Your task to perform on an android device: Go to calendar. Show me events next week Image 0: 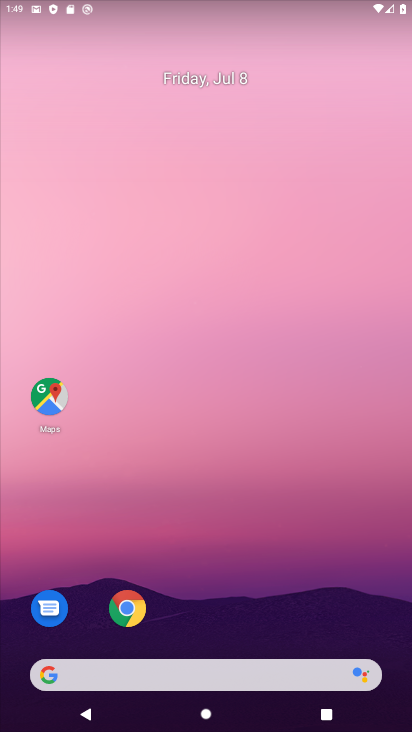
Step 0: drag from (221, 553) to (230, 378)
Your task to perform on an android device: Go to calendar. Show me events next week Image 1: 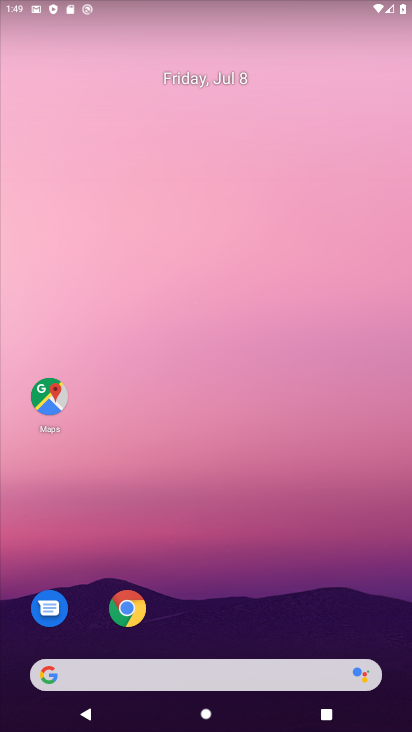
Step 1: drag from (309, 555) to (292, 31)
Your task to perform on an android device: Go to calendar. Show me events next week Image 2: 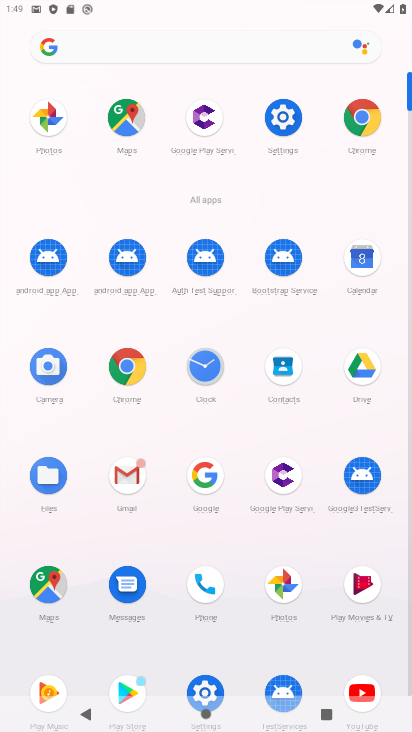
Step 2: click (366, 258)
Your task to perform on an android device: Go to calendar. Show me events next week Image 3: 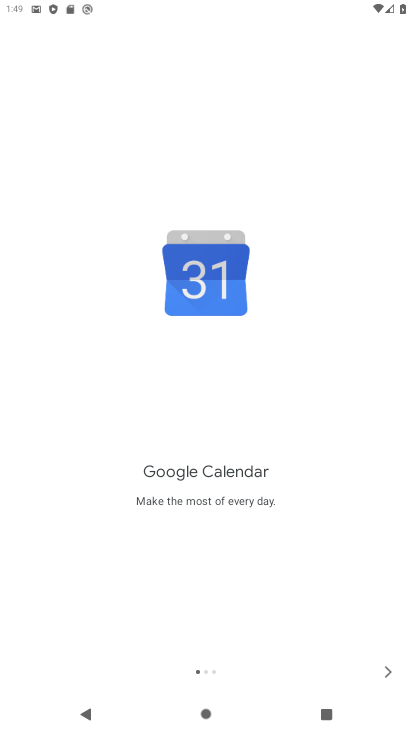
Step 3: click (382, 675)
Your task to perform on an android device: Go to calendar. Show me events next week Image 4: 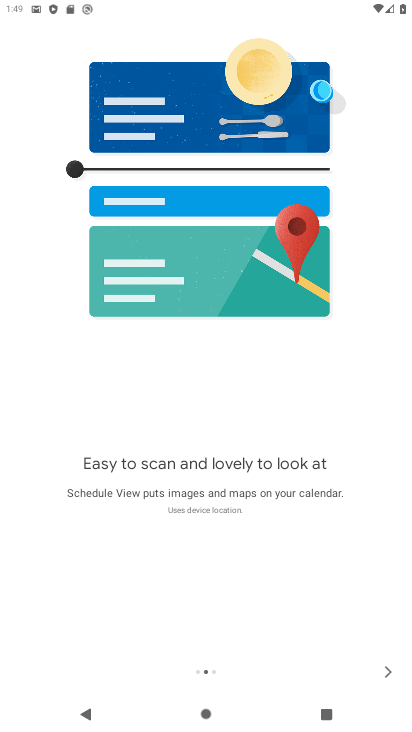
Step 4: click (384, 674)
Your task to perform on an android device: Go to calendar. Show me events next week Image 5: 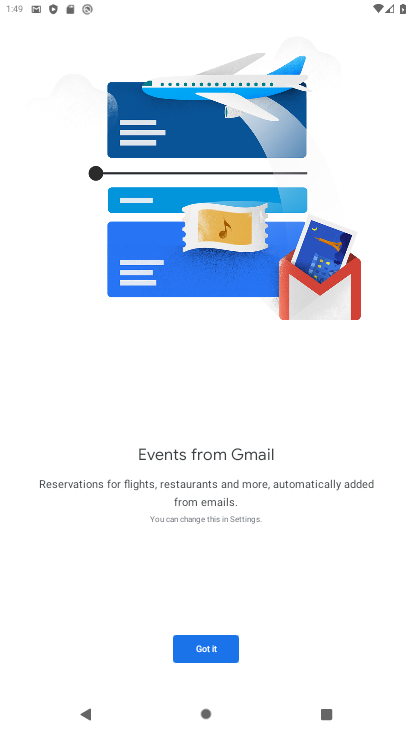
Step 5: click (186, 649)
Your task to perform on an android device: Go to calendar. Show me events next week Image 6: 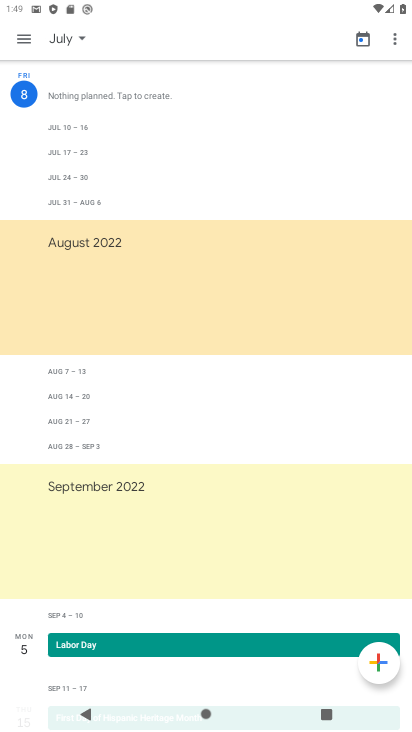
Step 6: click (64, 33)
Your task to perform on an android device: Go to calendar. Show me events next week Image 7: 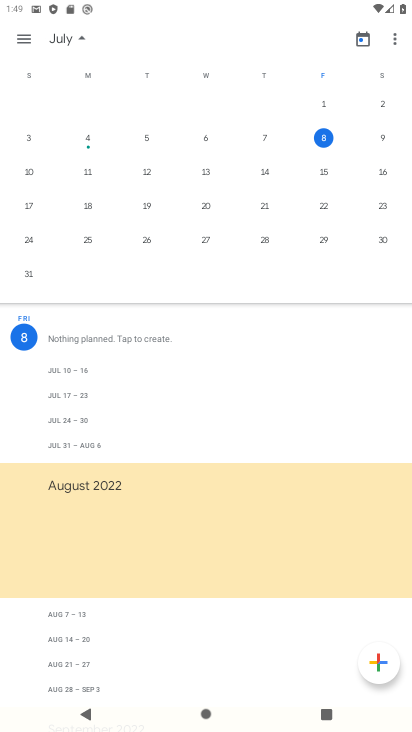
Step 7: click (35, 173)
Your task to perform on an android device: Go to calendar. Show me events next week Image 8: 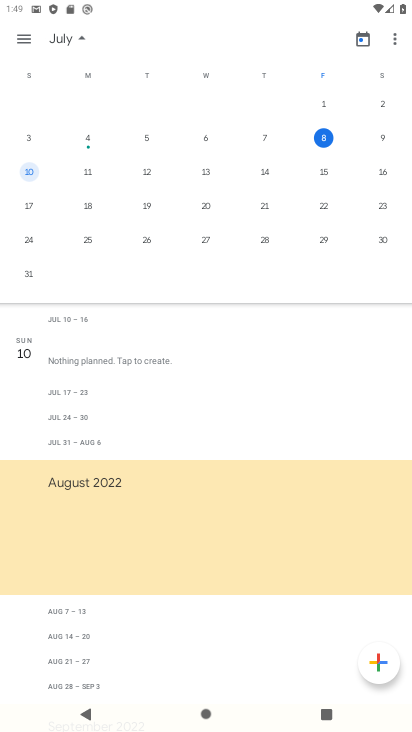
Step 8: click (96, 174)
Your task to perform on an android device: Go to calendar. Show me events next week Image 9: 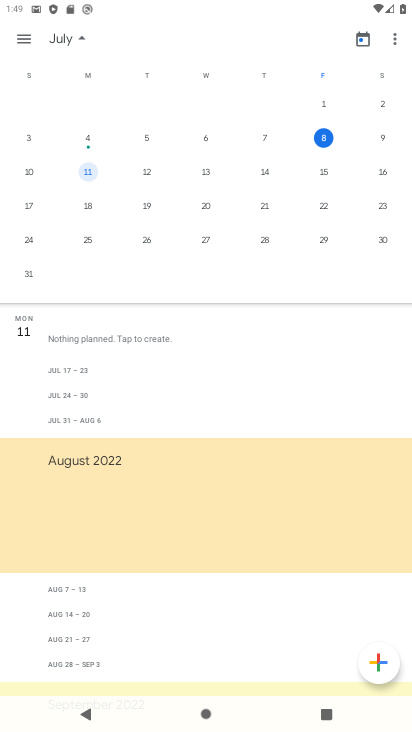
Step 9: click (156, 179)
Your task to perform on an android device: Go to calendar. Show me events next week Image 10: 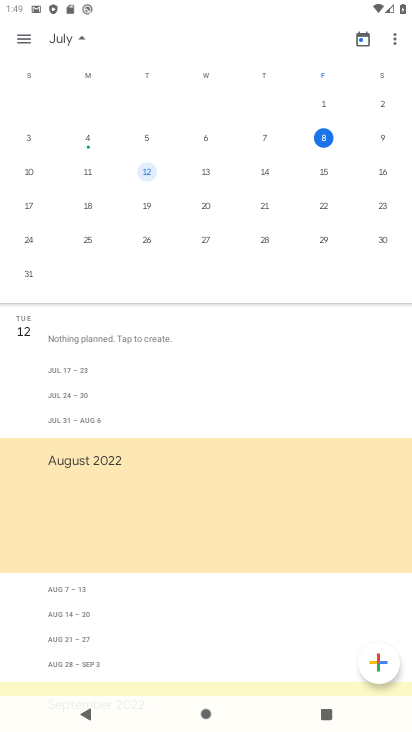
Step 10: click (209, 177)
Your task to perform on an android device: Go to calendar. Show me events next week Image 11: 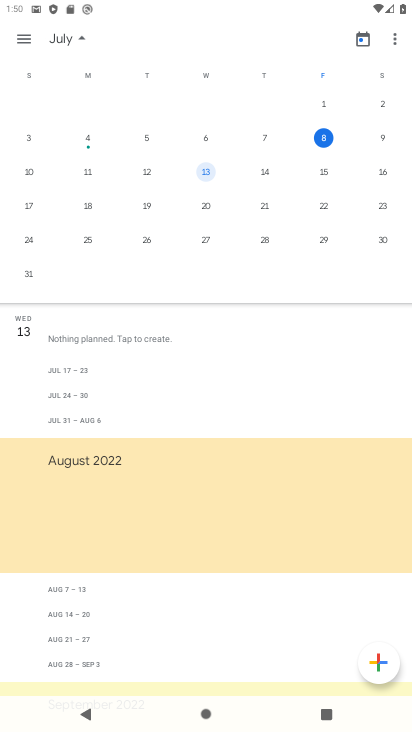
Step 11: click (268, 175)
Your task to perform on an android device: Go to calendar. Show me events next week Image 12: 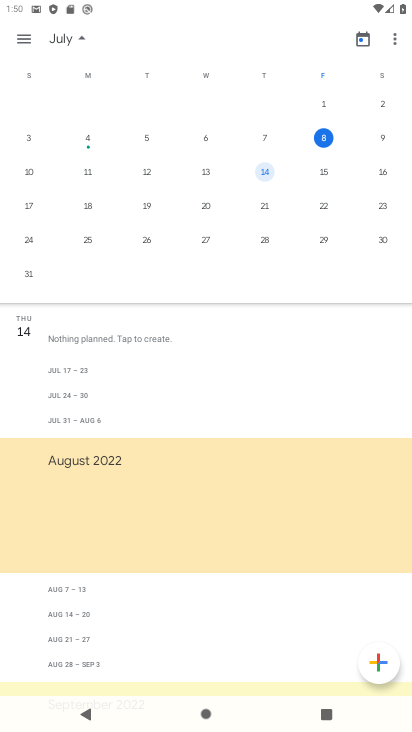
Step 12: click (334, 175)
Your task to perform on an android device: Go to calendar. Show me events next week Image 13: 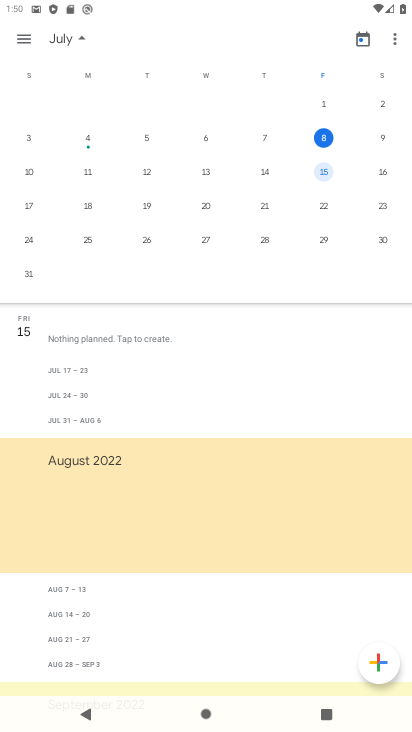
Step 13: click (388, 175)
Your task to perform on an android device: Go to calendar. Show me events next week Image 14: 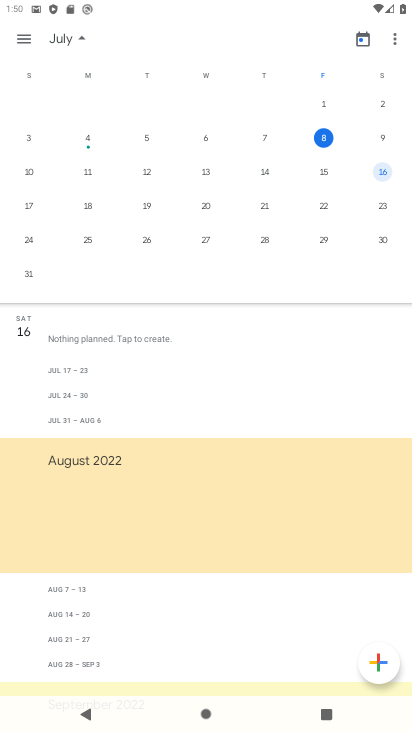
Step 14: task complete